Your task to perform on an android device: What is the recent news? Image 0: 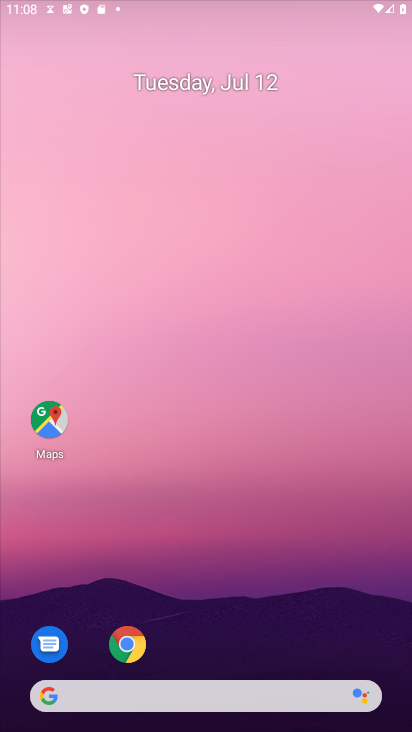
Step 0: drag from (207, 657) to (165, 725)
Your task to perform on an android device: What is the recent news? Image 1: 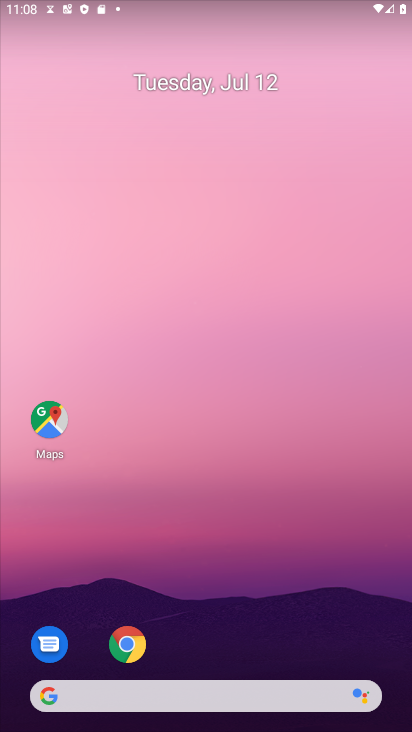
Step 1: task complete